Your task to perform on an android device: Turn off the flashlight Image 0: 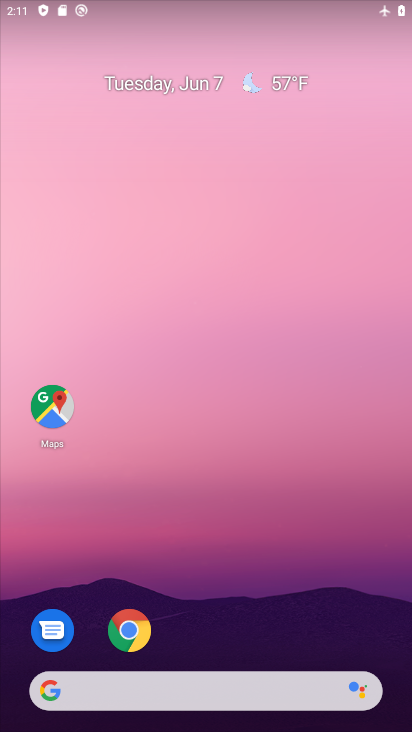
Step 0: drag from (390, 698) to (342, 156)
Your task to perform on an android device: Turn off the flashlight Image 1: 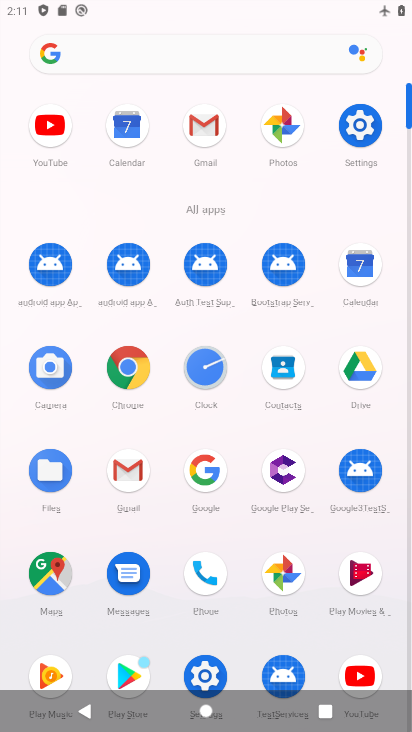
Step 1: click (359, 113)
Your task to perform on an android device: Turn off the flashlight Image 2: 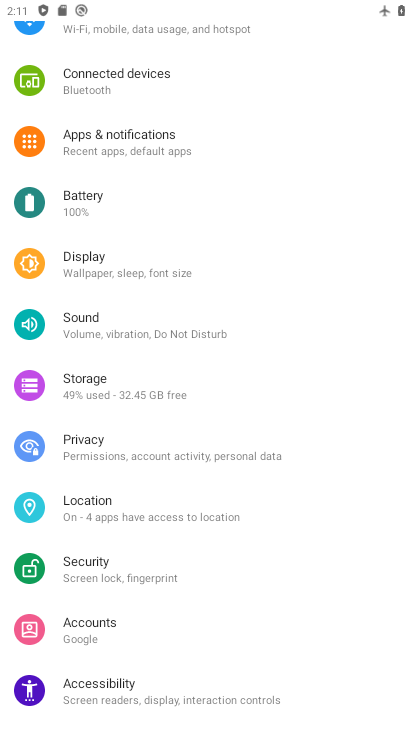
Step 2: click (88, 260)
Your task to perform on an android device: Turn off the flashlight Image 3: 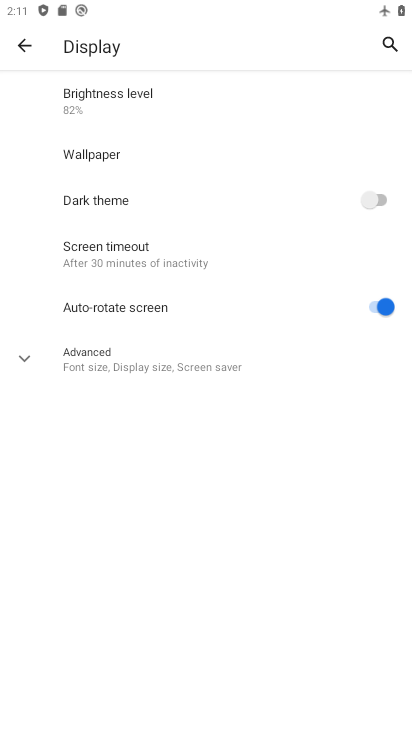
Step 3: task complete